Your task to perform on an android device: change the clock display to digital Image 0: 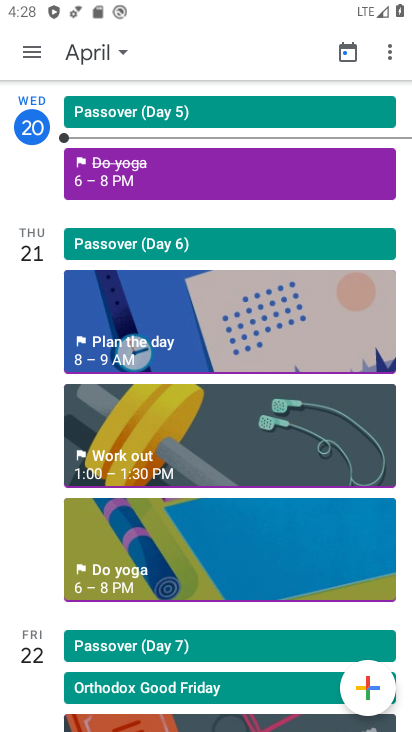
Step 0: press back button
Your task to perform on an android device: change the clock display to digital Image 1: 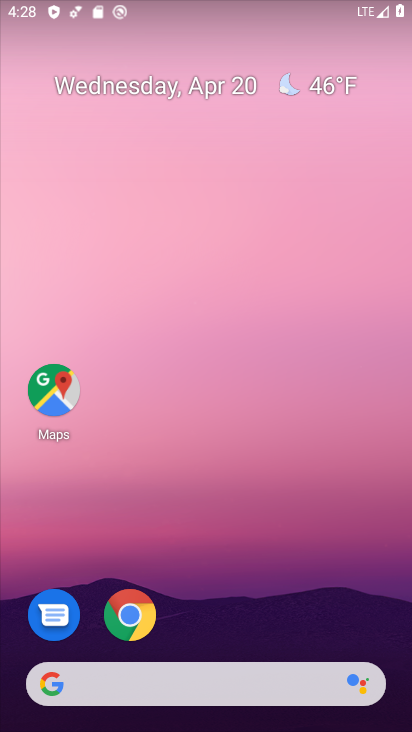
Step 1: drag from (207, 548) to (360, 30)
Your task to perform on an android device: change the clock display to digital Image 2: 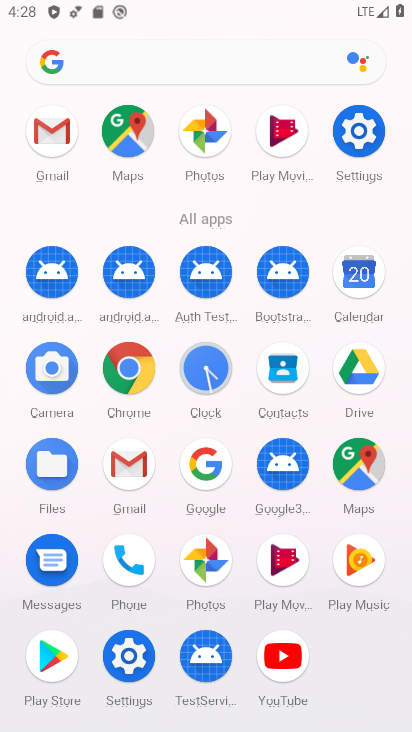
Step 2: click (204, 368)
Your task to perform on an android device: change the clock display to digital Image 3: 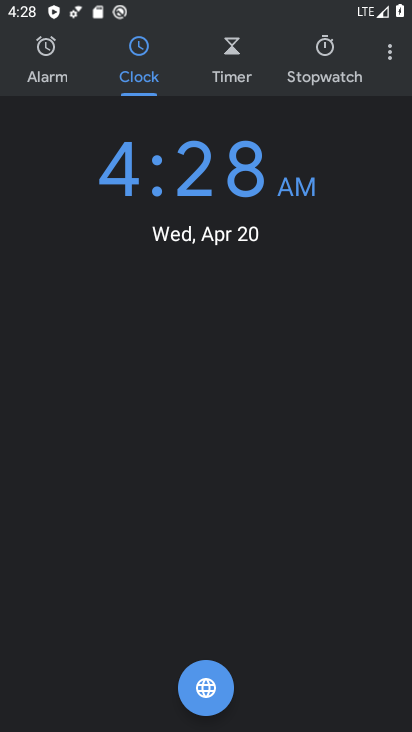
Step 3: drag from (381, 51) to (341, 138)
Your task to perform on an android device: change the clock display to digital Image 4: 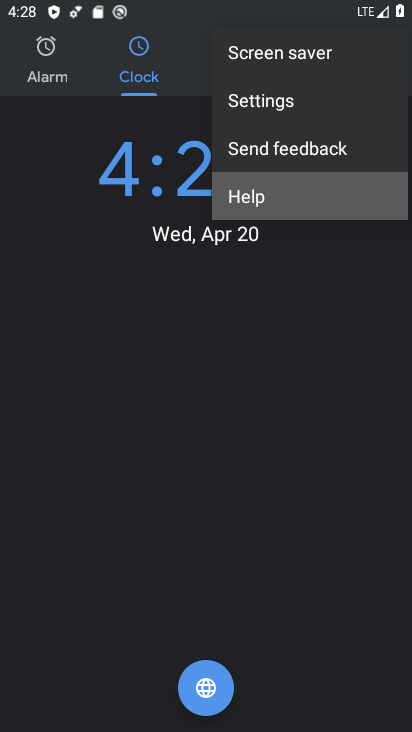
Step 4: click (288, 336)
Your task to perform on an android device: change the clock display to digital Image 5: 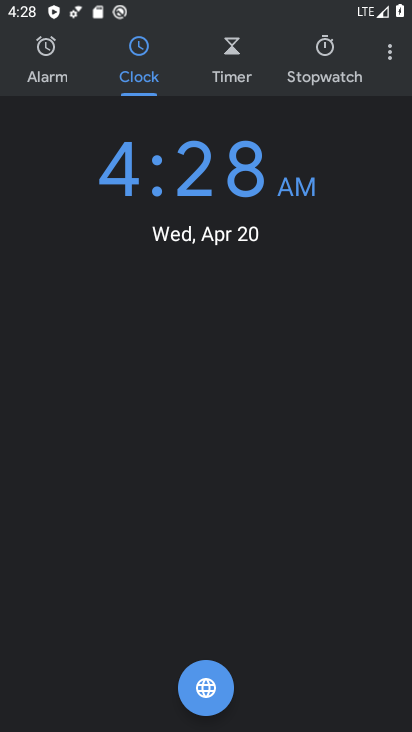
Step 5: click (389, 52)
Your task to perform on an android device: change the clock display to digital Image 6: 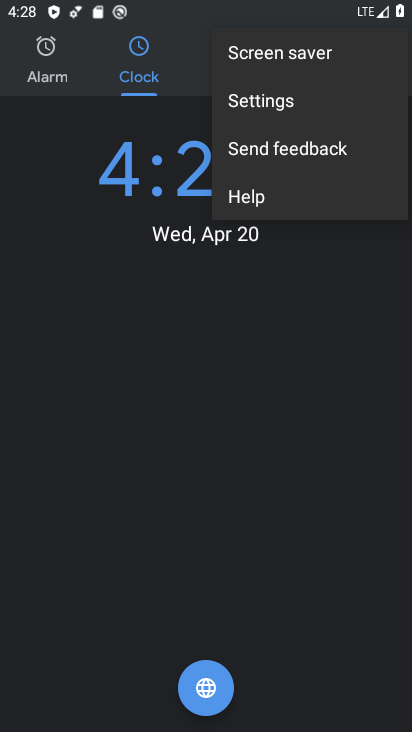
Step 6: click (272, 104)
Your task to perform on an android device: change the clock display to digital Image 7: 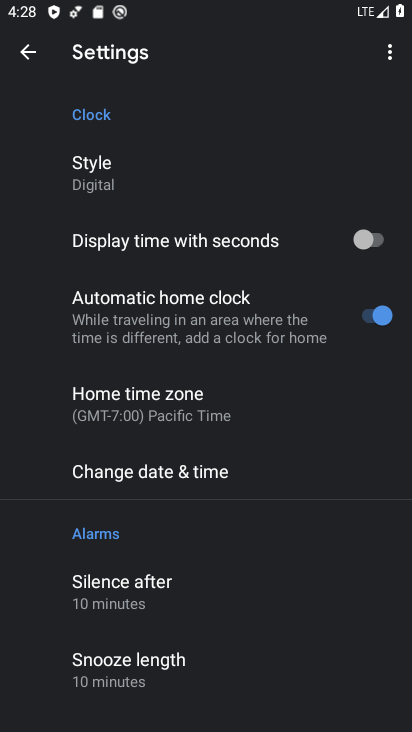
Step 7: task complete